Your task to perform on an android device: turn vacation reply on in the gmail app Image 0: 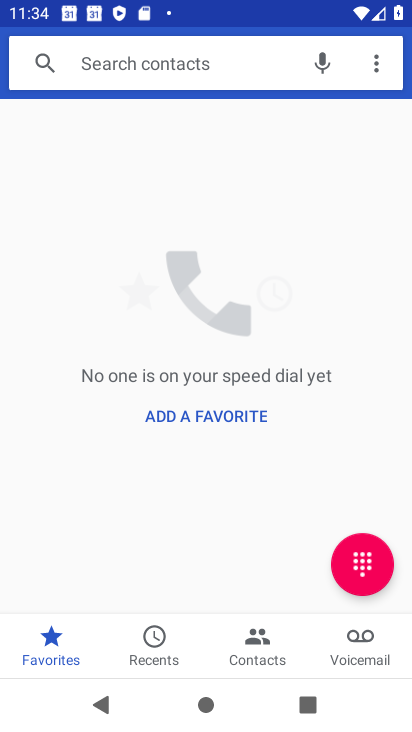
Step 0: press back button
Your task to perform on an android device: turn vacation reply on in the gmail app Image 1: 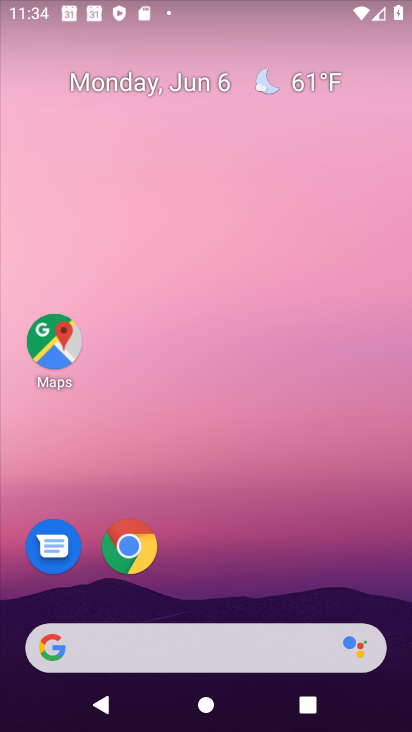
Step 1: drag from (219, 529) to (324, 54)
Your task to perform on an android device: turn vacation reply on in the gmail app Image 2: 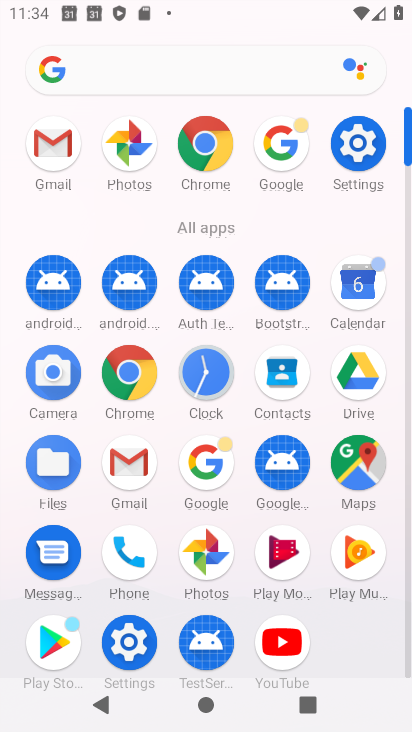
Step 2: click (56, 147)
Your task to perform on an android device: turn vacation reply on in the gmail app Image 3: 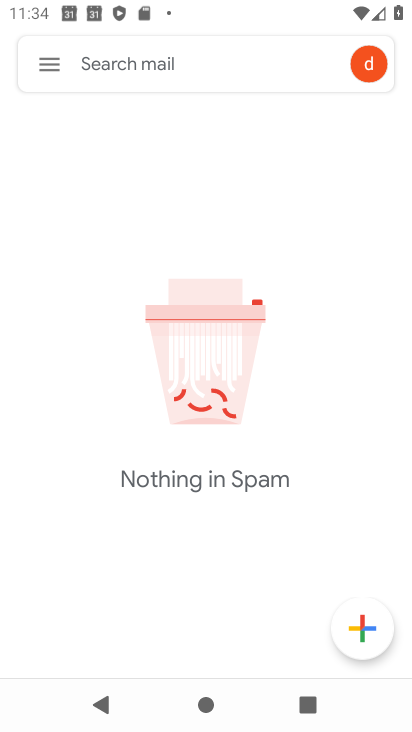
Step 3: click (47, 58)
Your task to perform on an android device: turn vacation reply on in the gmail app Image 4: 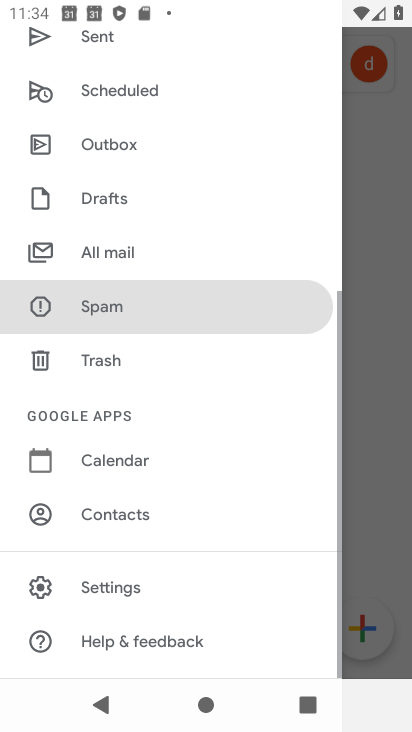
Step 4: click (121, 583)
Your task to perform on an android device: turn vacation reply on in the gmail app Image 5: 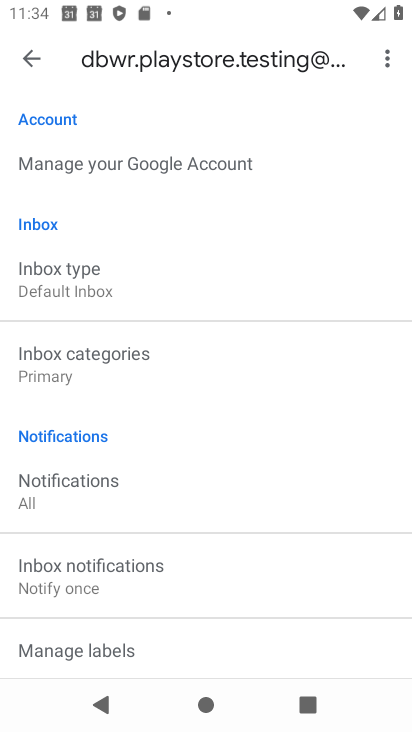
Step 5: drag from (123, 640) to (265, 29)
Your task to perform on an android device: turn vacation reply on in the gmail app Image 6: 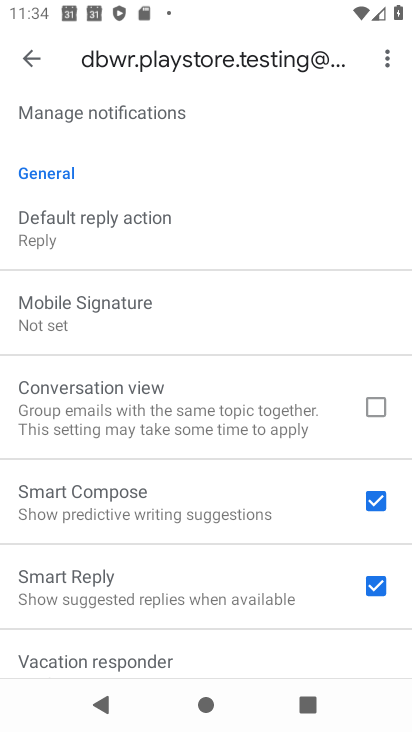
Step 6: drag from (125, 615) to (234, 129)
Your task to perform on an android device: turn vacation reply on in the gmail app Image 7: 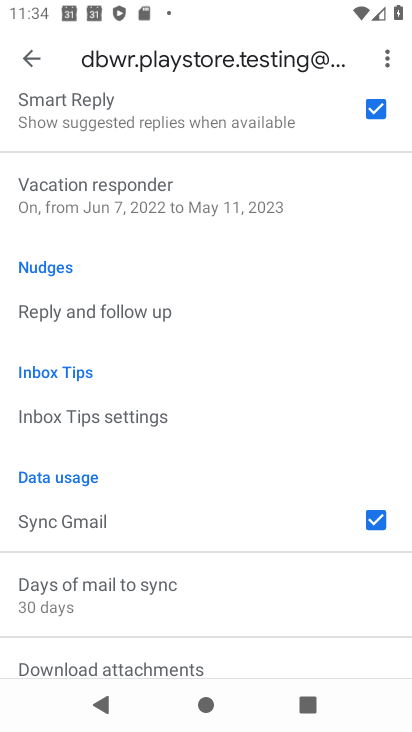
Step 7: click (116, 201)
Your task to perform on an android device: turn vacation reply on in the gmail app Image 8: 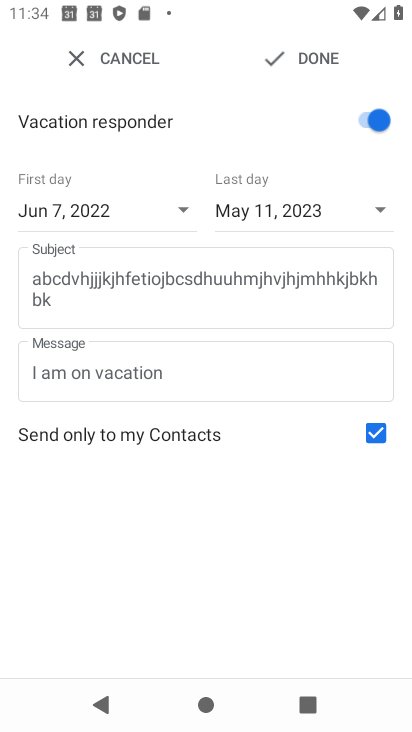
Step 8: task complete